Your task to perform on an android device: choose inbox layout in the gmail app Image 0: 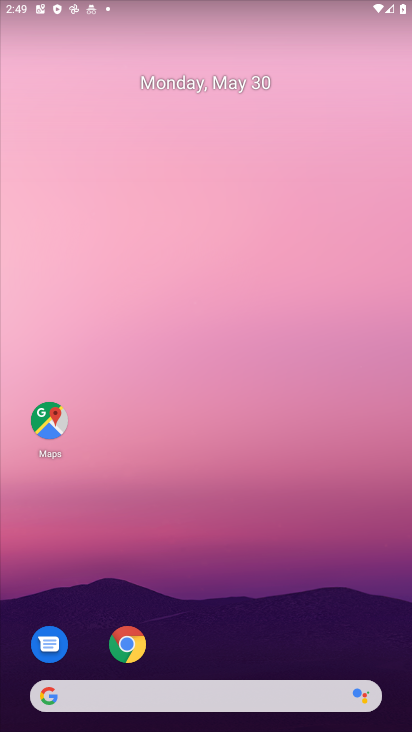
Step 0: drag from (290, 618) to (187, 35)
Your task to perform on an android device: choose inbox layout in the gmail app Image 1: 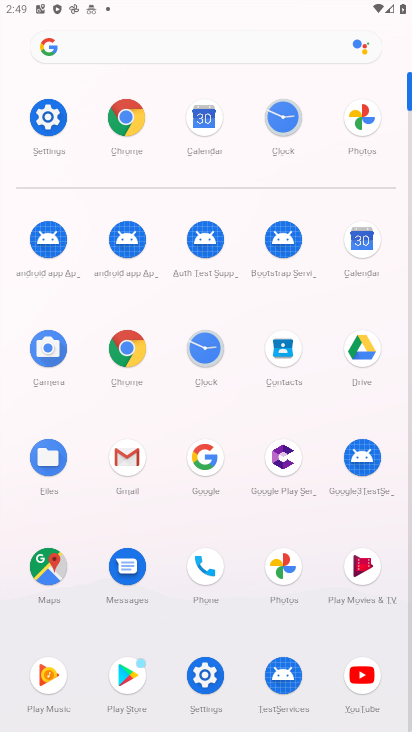
Step 1: click (127, 476)
Your task to perform on an android device: choose inbox layout in the gmail app Image 2: 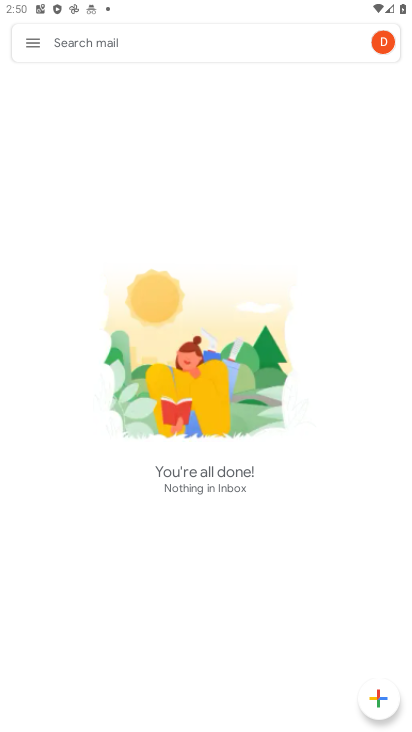
Step 2: task complete